Your task to perform on an android device: toggle airplane mode Image 0: 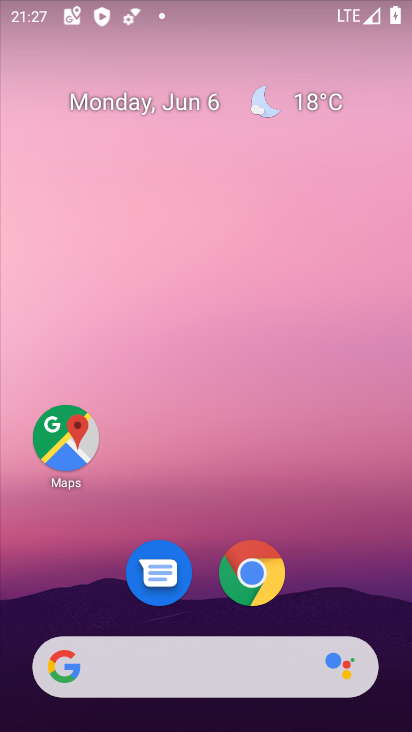
Step 0: drag from (357, 607) to (332, 166)
Your task to perform on an android device: toggle airplane mode Image 1: 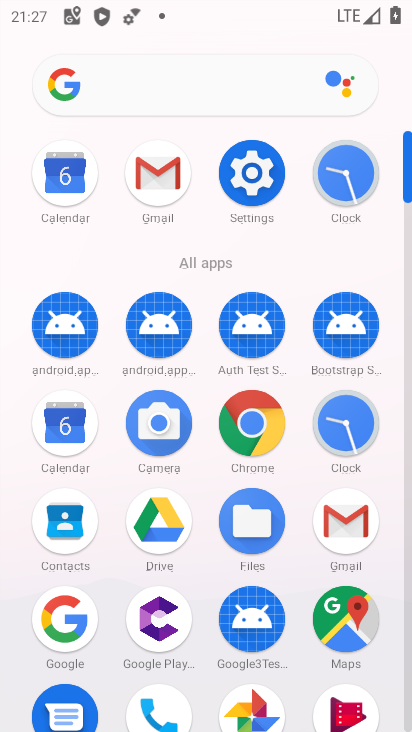
Step 1: click (236, 191)
Your task to perform on an android device: toggle airplane mode Image 2: 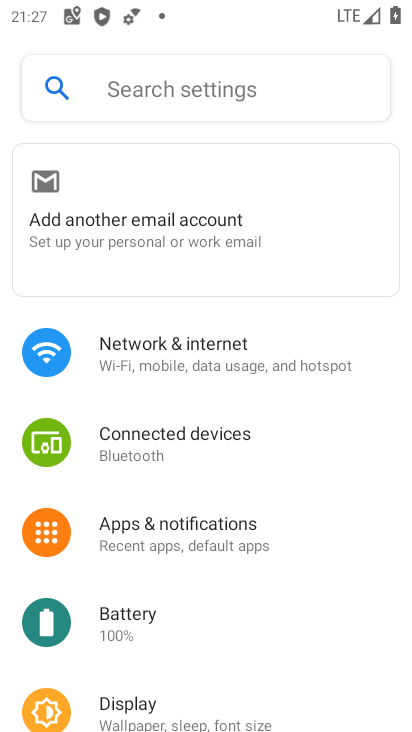
Step 2: click (228, 371)
Your task to perform on an android device: toggle airplane mode Image 3: 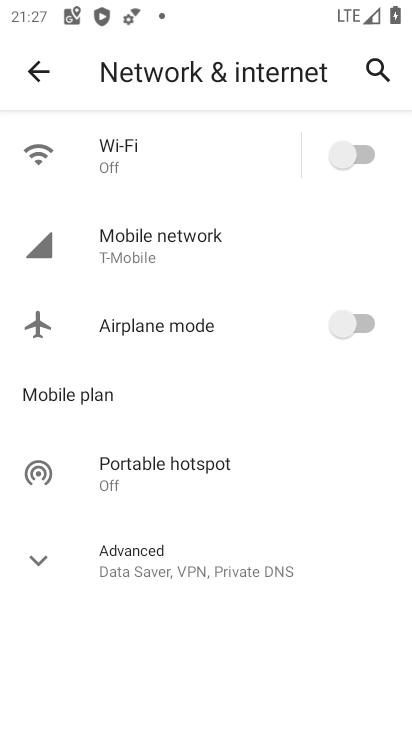
Step 3: click (353, 322)
Your task to perform on an android device: toggle airplane mode Image 4: 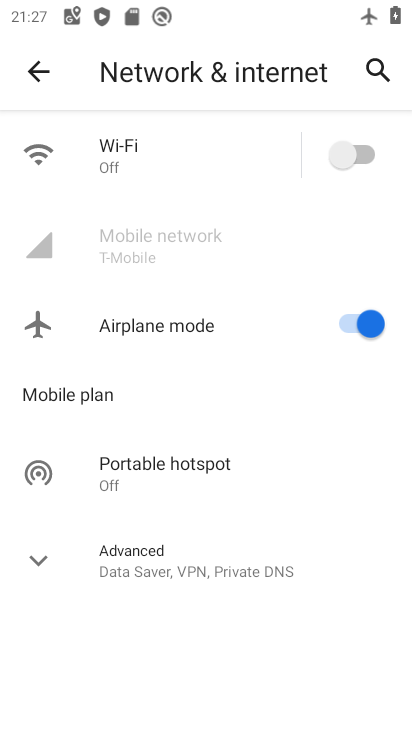
Step 4: task complete